Your task to perform on an android device: open a bookmark in the chrome app Image 0: 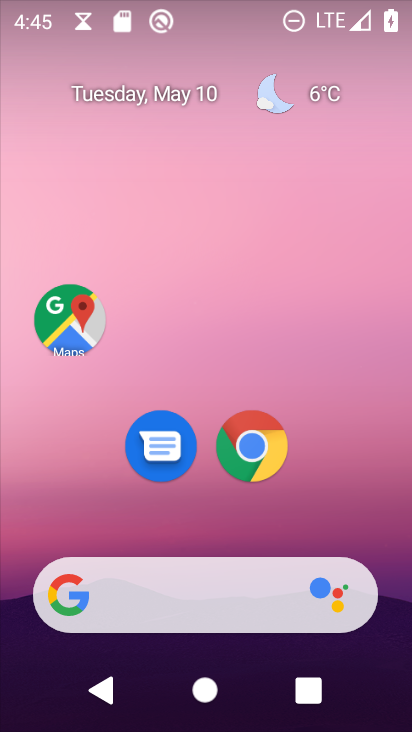
Step 0: click (260, 455)
Your task to perform on an android device: open a bookmark in the chrome app Image 1: 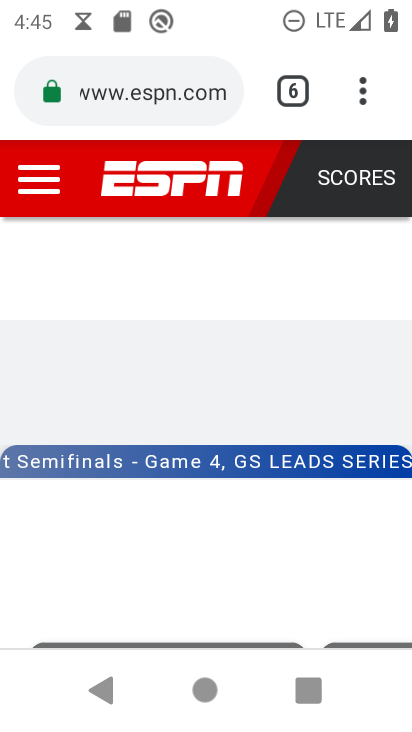
Step 1: click (362, 92)
Your task to perform on an android device: open a bookmark in the chrome app Image 2: 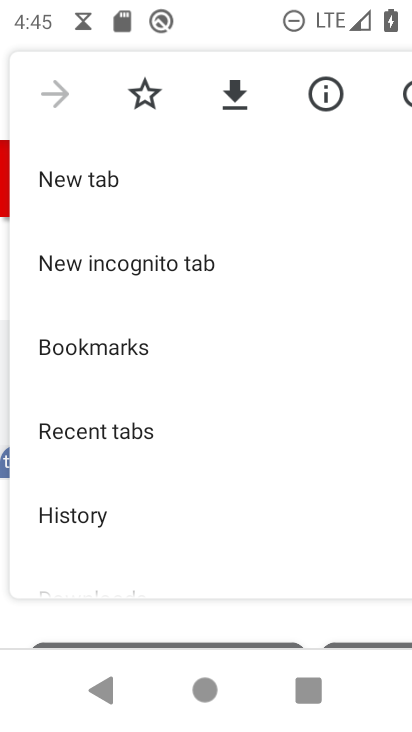
Step 2: click (142, 367)
Your task to perform on an android device: open a bookmark in the chrome app Image 3: 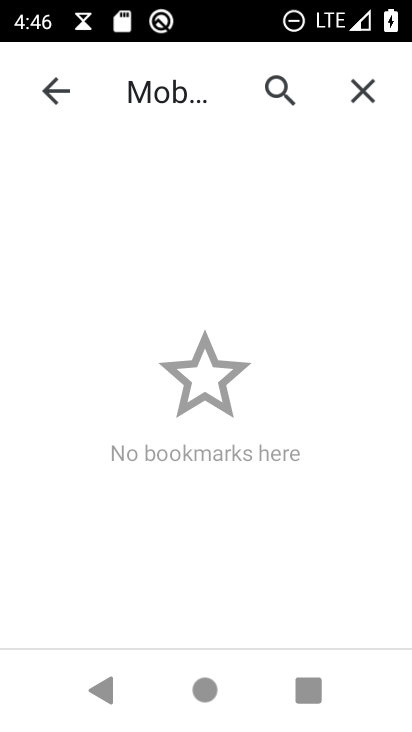
Step 3: task complete